Your task to perform on an android device: Open the phone app and click the voicemail tab. Image 0: 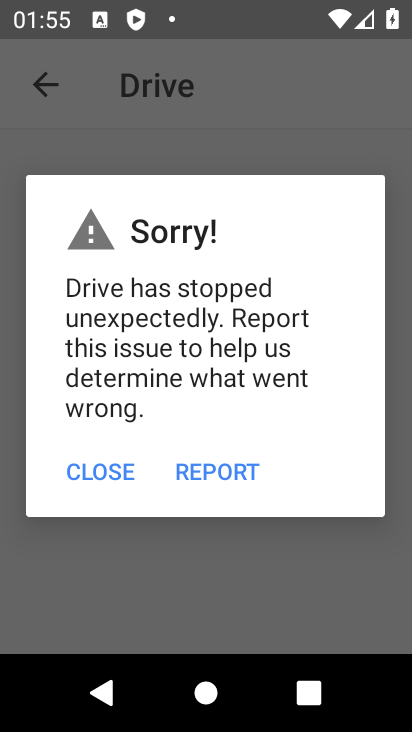
Step 0: press home button
Your task to perform on an android device: Open the phone app and click the voicemail tab. Image 1: 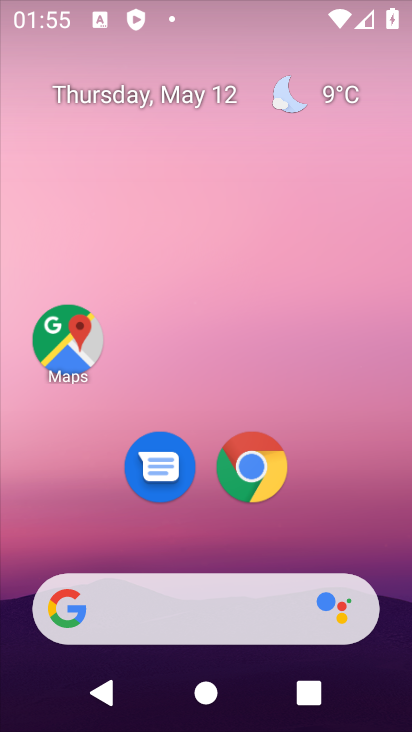
Step 1: drag from (264, 552) to (311, 243)
Your task to perform on an android device: Open the phone app and click the voicemail tab. Image 2: 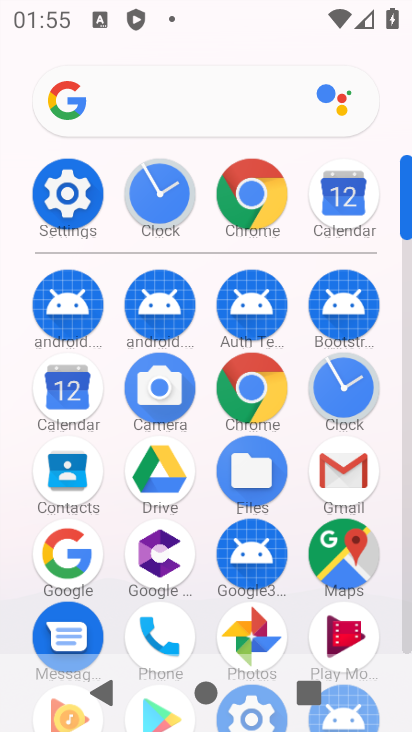
Step 2: drag from (207, 493) to (211, 295)
Your task to perform on an android device: Open the phone app and click the voicemail tab. Image 3: 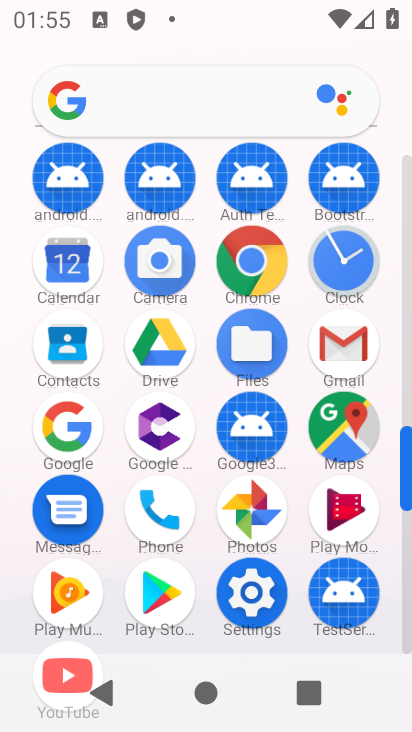
Step 3: click (150, 512)
Your task to perform on an android device: Open the phone app and click the voicemail tab. Image 4: 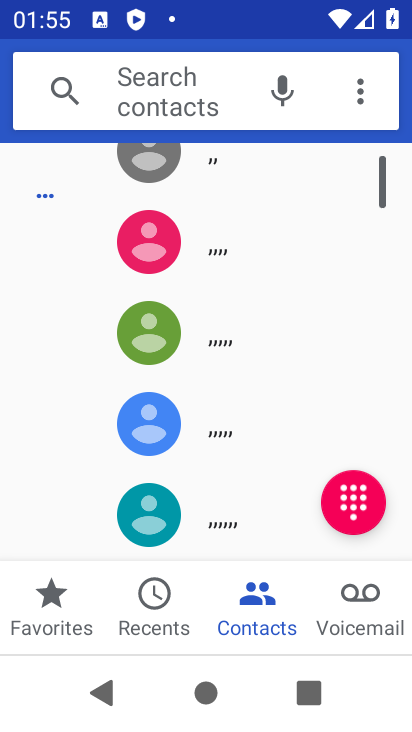
Step 4: click (365, 601)
Your task to perform on an android device: Open the phone app and click the voicemail tab. Image 5: 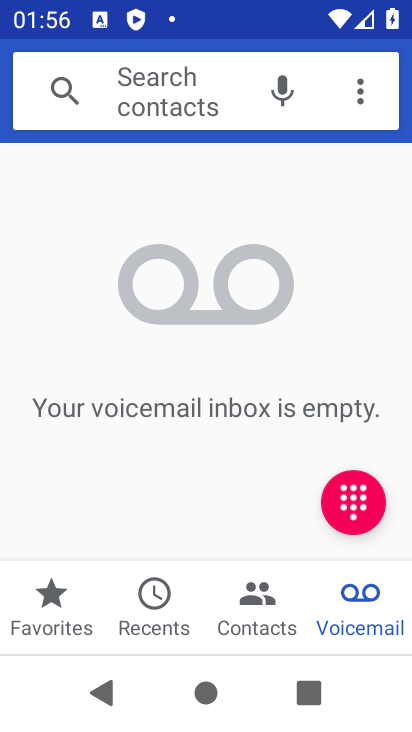
Step 5: task complete